Your task to perform on an android device: Open the web browser Image 0: 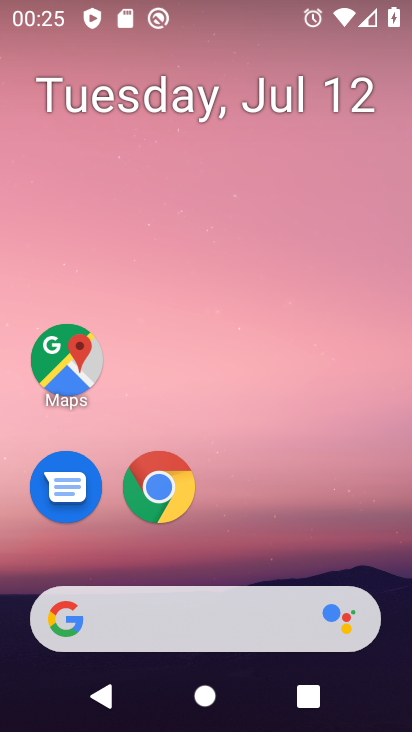
Step 0: drag from (345, 526) to (0, 337)
Your task to perform on an android device: Open the web browser Image 1: 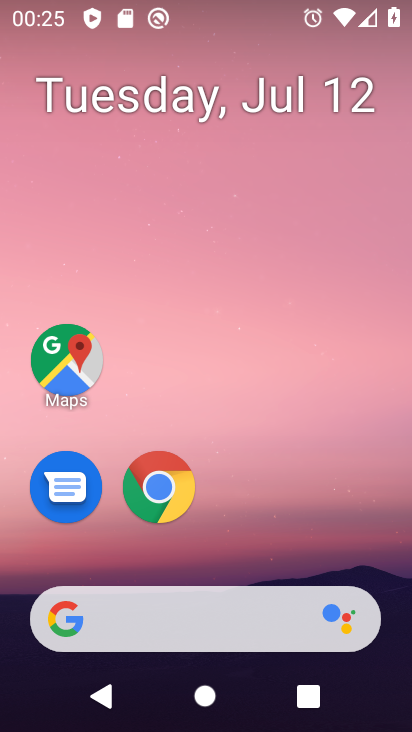
Step 1: drag from (318, 541) to (364, 76)
Your task to perform on an android device: Open the web browser Image 2: 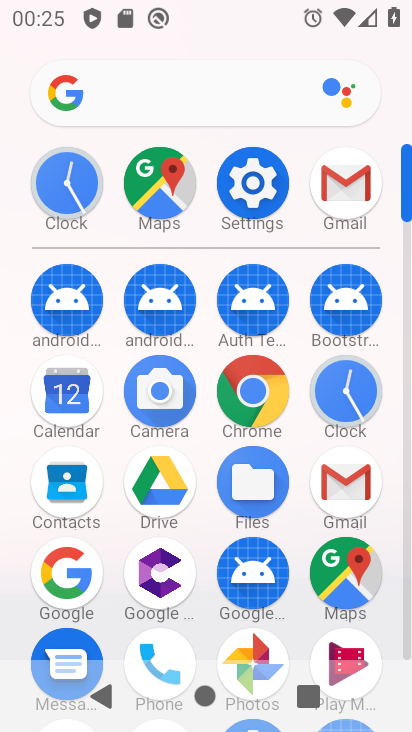
Step 2: click (247, 403)
Your task to perform on an android device: Open the web browser Image 3: 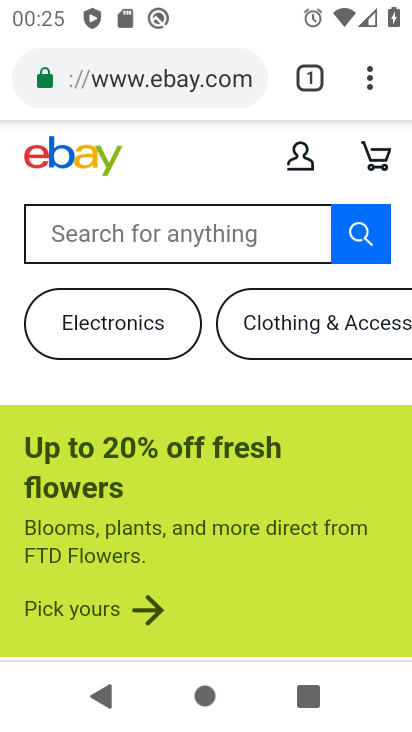
Step 3: task complete